Your task to perform on an android device: turn on airplane mode Image 0: 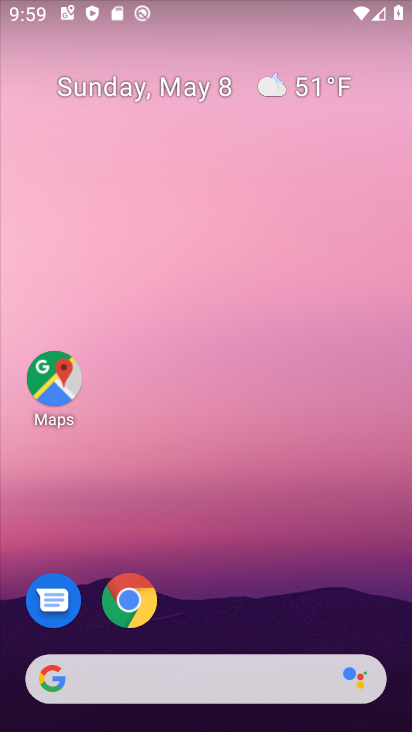
Step 0: drag from (263, 546) to (230, 0)
Your task to perform on an android device: turn on airplane mode Image 1: 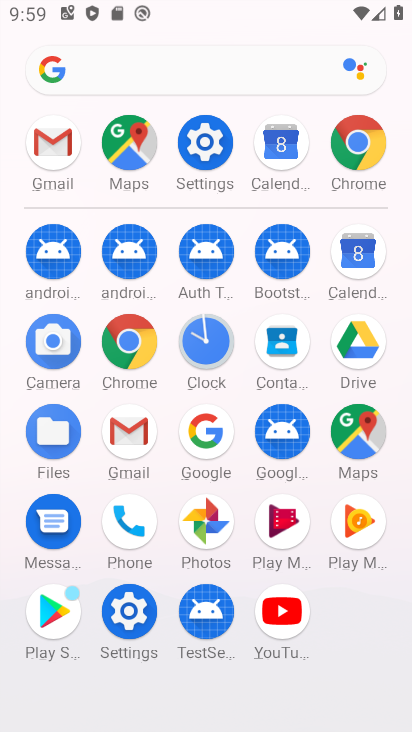
Step 1: click (200, 135)
Your task to perform on an android device: turn on airplane mode Image 2: 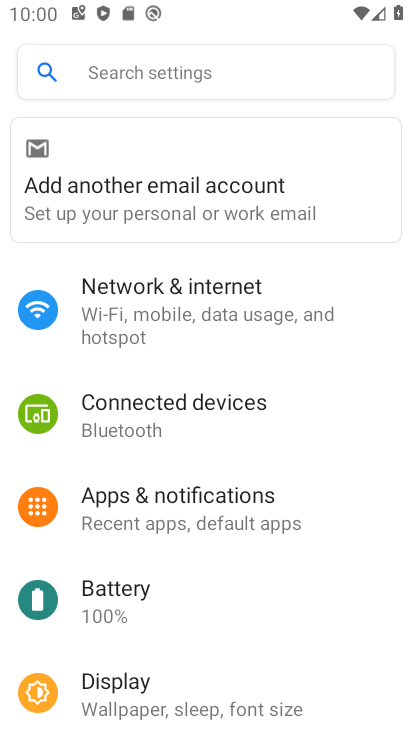
Step 2: click (192, 294)
Your task to perform on an android device: turn on airplane mode Image 3: 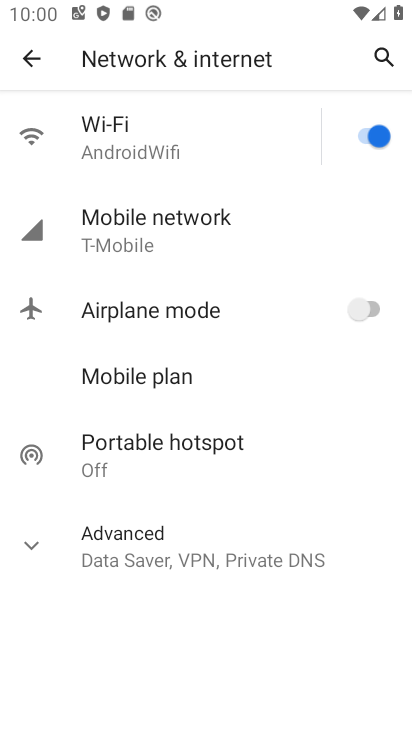
Step 3: click (349, 310)
Your task to perform on an android device: turn on airplane mode Image 4: 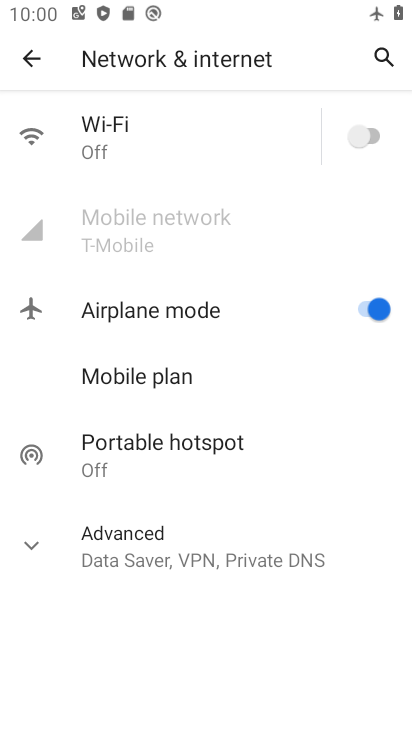
Step 4: task complete